Your task to perform on an android device: turn off airplane mode Image 0: 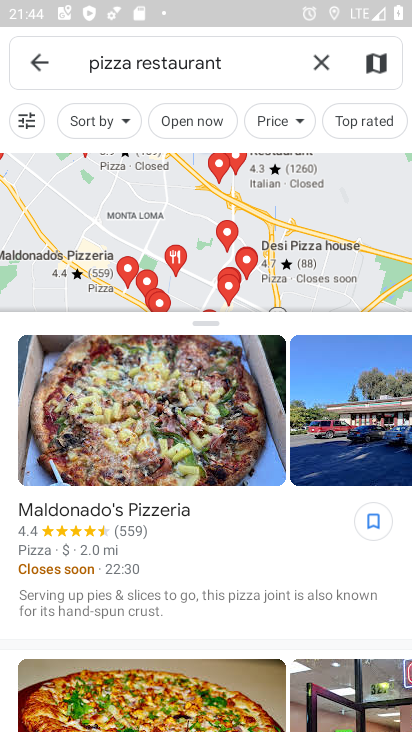
Step 0: drag from (323, 11) to (254, 617)
Your task to perform on an android device: turn off airplane mode Image 1: 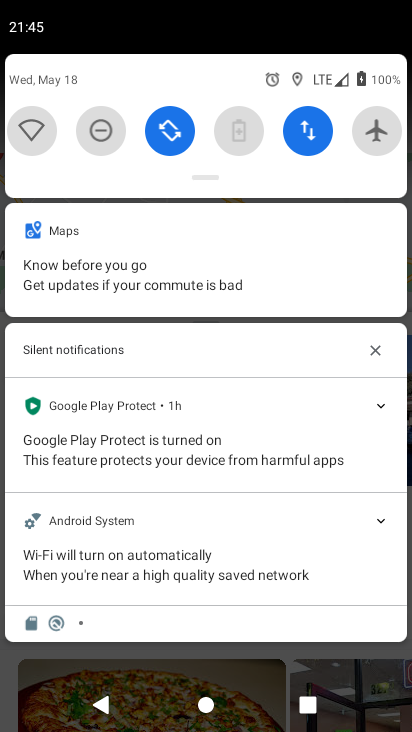
Step 1: task complete